Your task to perform on an android device: delete location history Image 0: 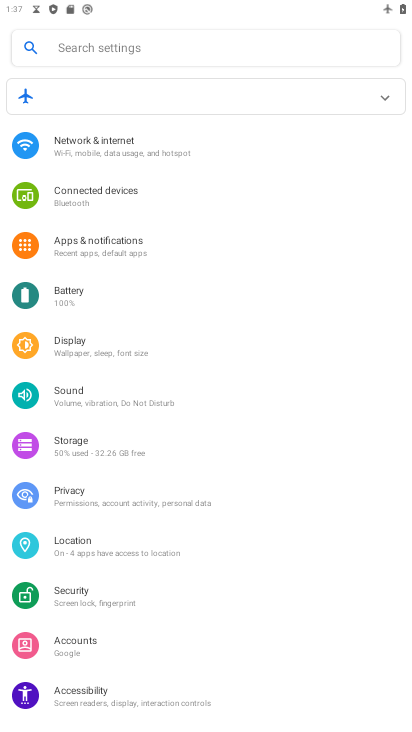
Step 0: press home button
Your task to perform on an android device: delete location history Image 1: 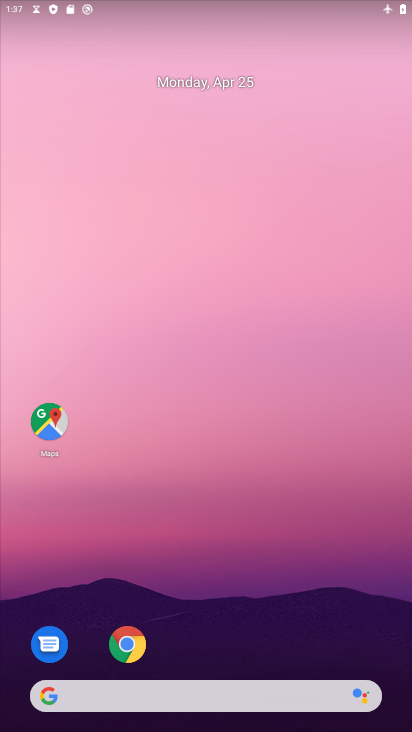
Step 1: drag from (375, 605) to (363, 70)
Your task to perform on an android device: delete location history Image 2: 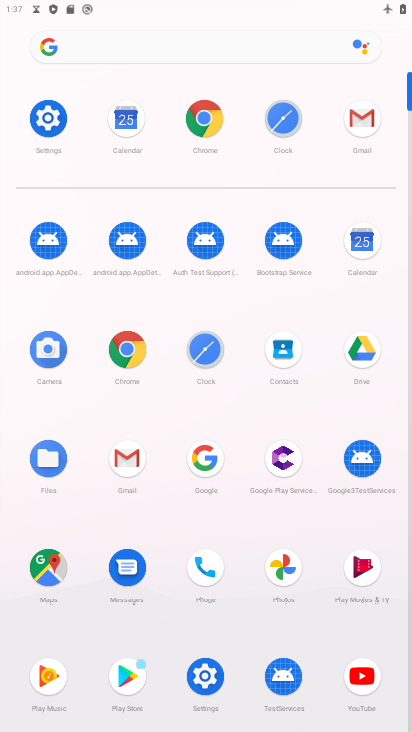
Step 2: click (46, 567)
Your task to perform on an android device: delete location history Image 3: 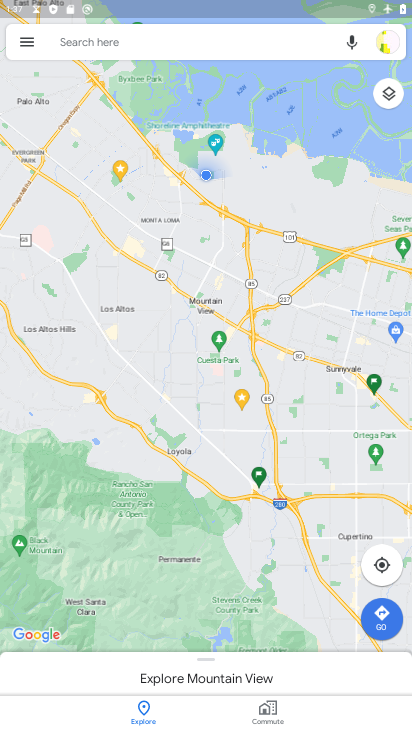
Step 3: click (26, 44)
Your task to perform on an android device: delete location history Image 4: 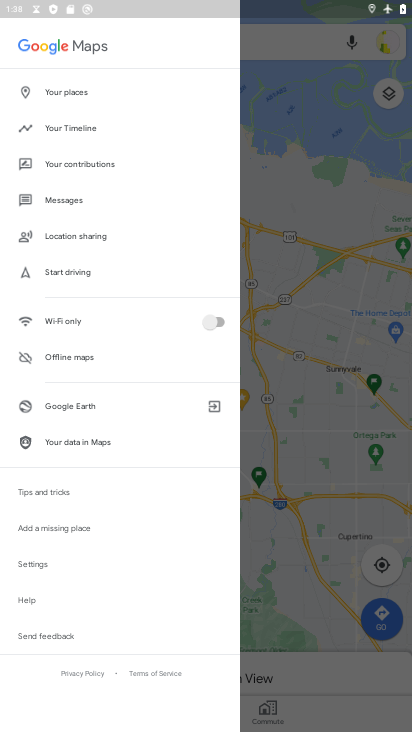
Step 4: click (74, 142)
Your task to perform on an android device: delete location history Image 5: 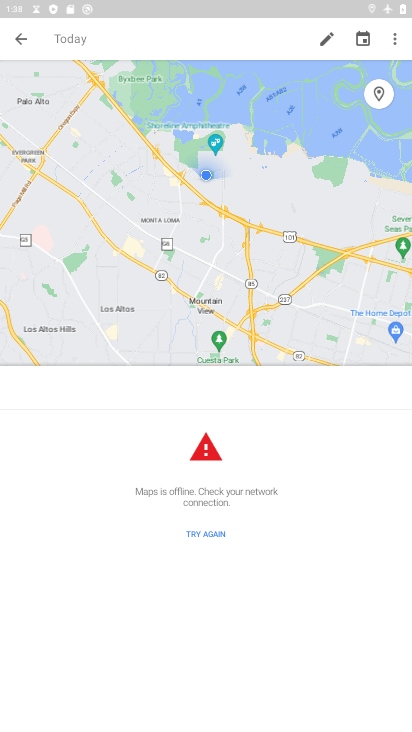
Step 5: click (394, 38)
Your task to perform on an android device: delete location history Image 6: 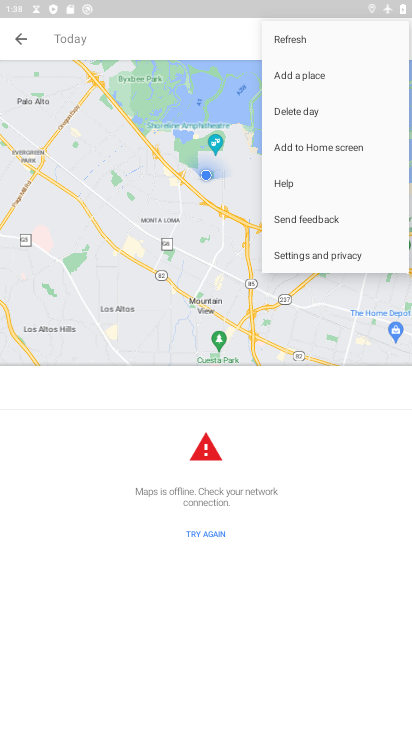
Step 6: click (297, 253)
Your task to perform on an android device: delete location history Image 7: 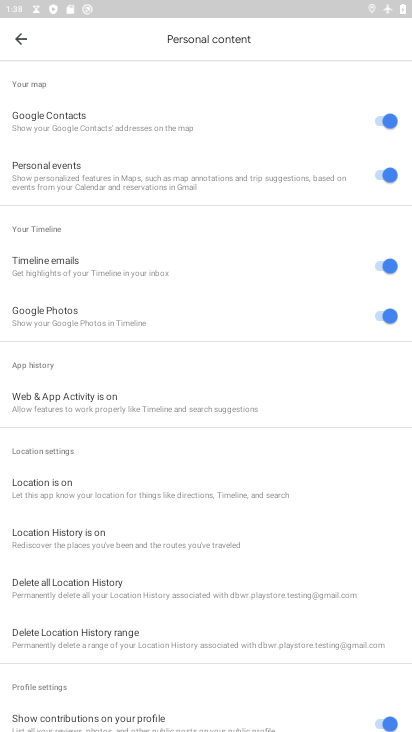
Step 7: click (56, 598)
Your task to perform on an android device: delete location history Image 8: 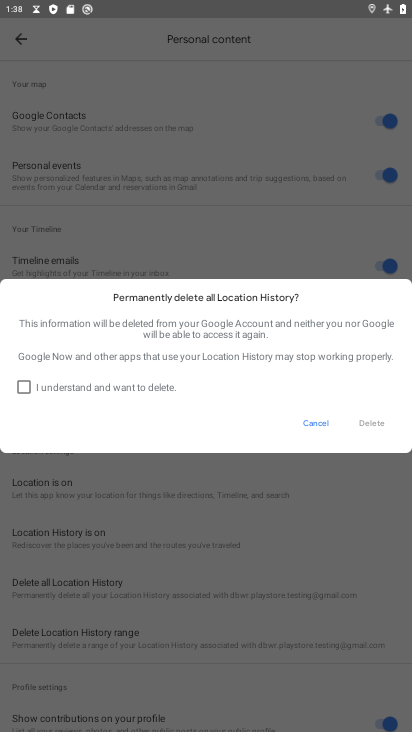
Step 8: click (23, 387)
Your task to perform on an android device: delete location history Image 9: 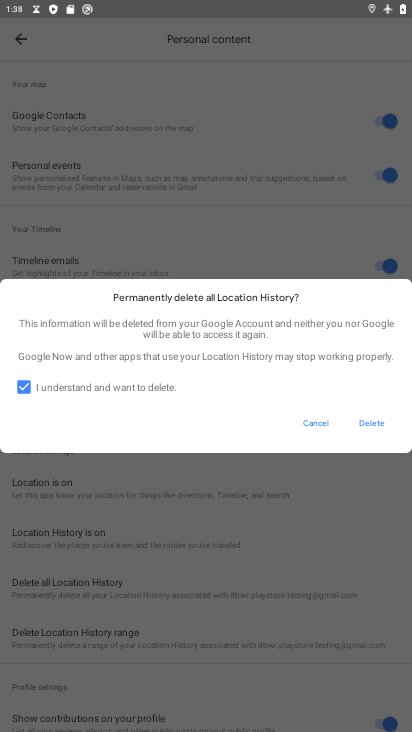
Step 9: click (370, 426)
Your task to perform on an android device: delete location history Image 10: 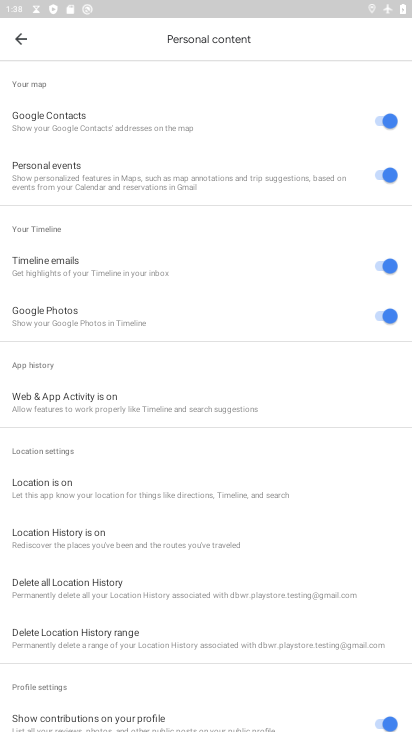
Step 10: task complete